Your task to perform on an android device: change the clock display to digital Image 0: 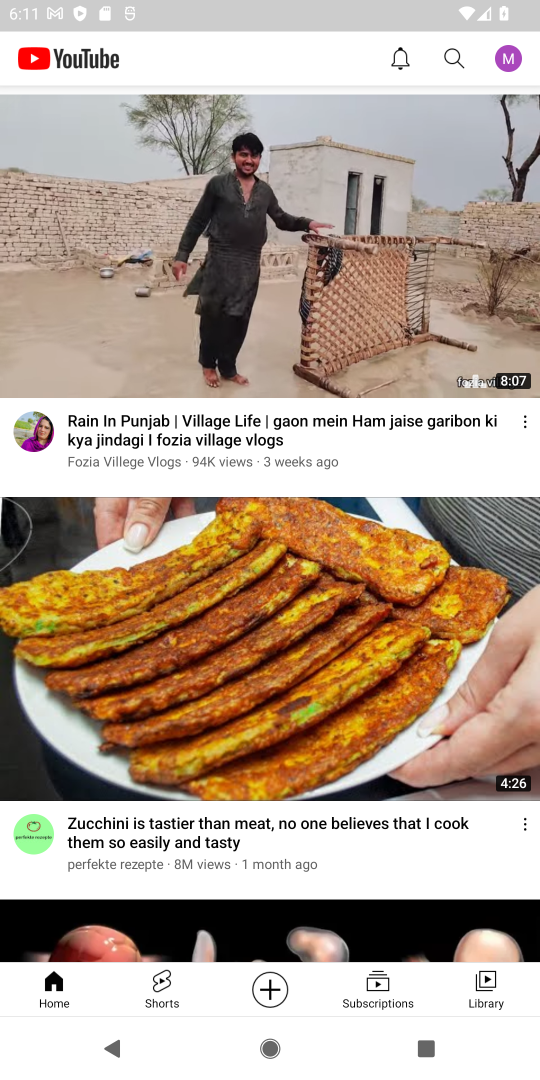
Step 0: press back button
Your task to perform on an android device: change the clock display to digital Image 1: 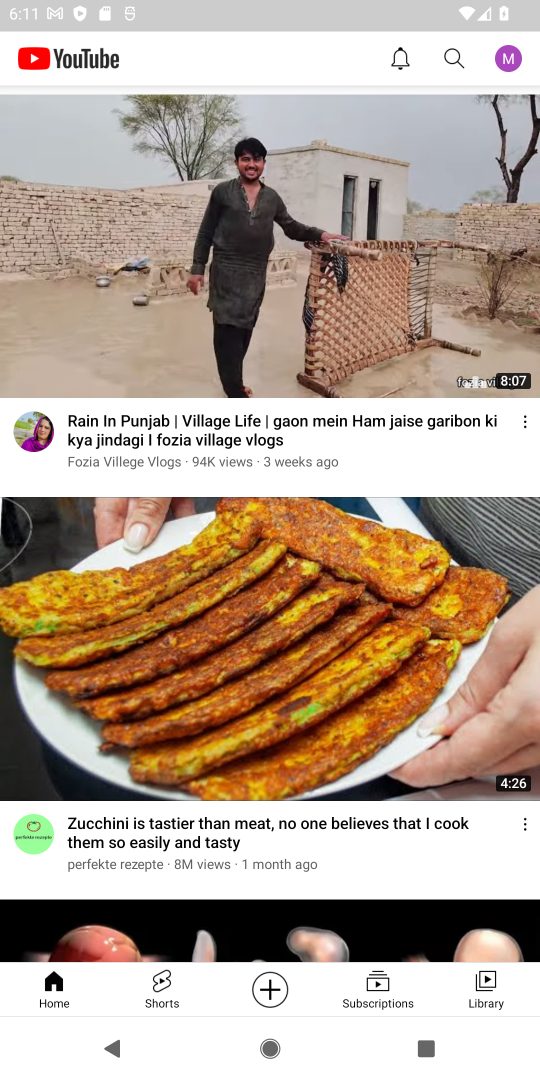
Step 1: press home button
Your task to perform on an android device: change the clock display to digital Image 2: 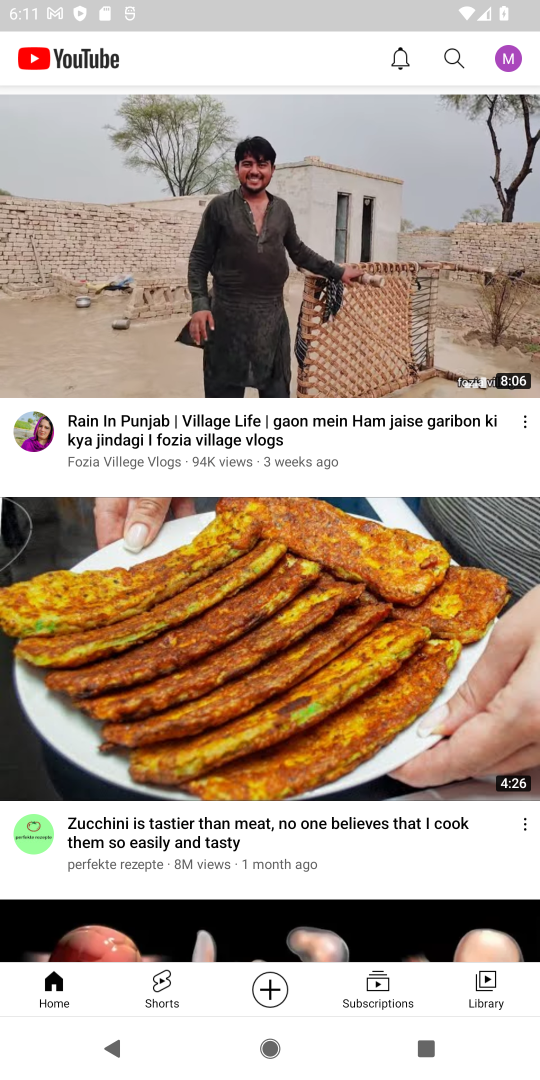
Step 2: press back button
Your task to perform on an android device: change the clock display to digital Image 3: 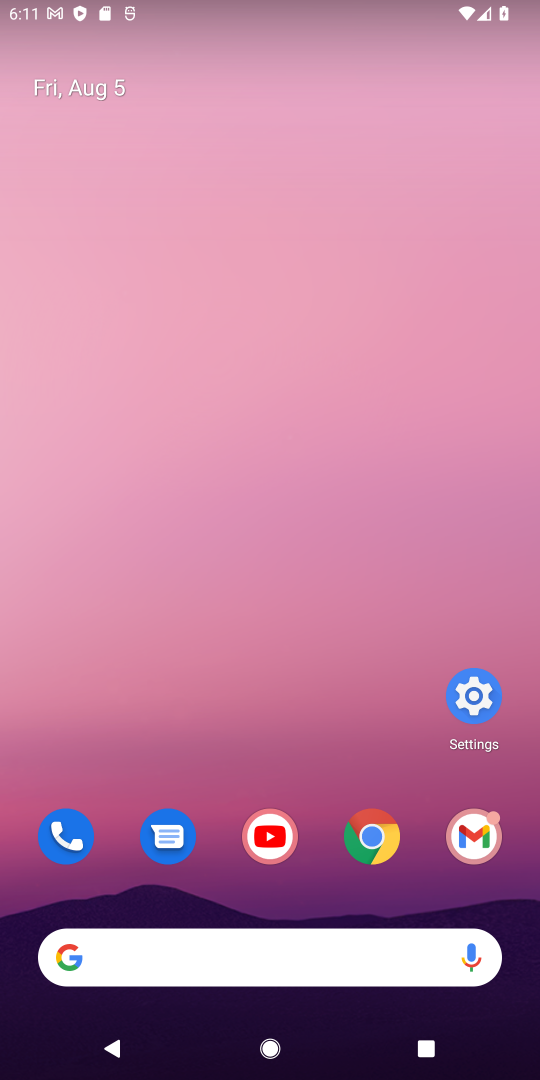
Step 3: press back button
Your task to perform on an android device: change the clock display to digital Image 4: 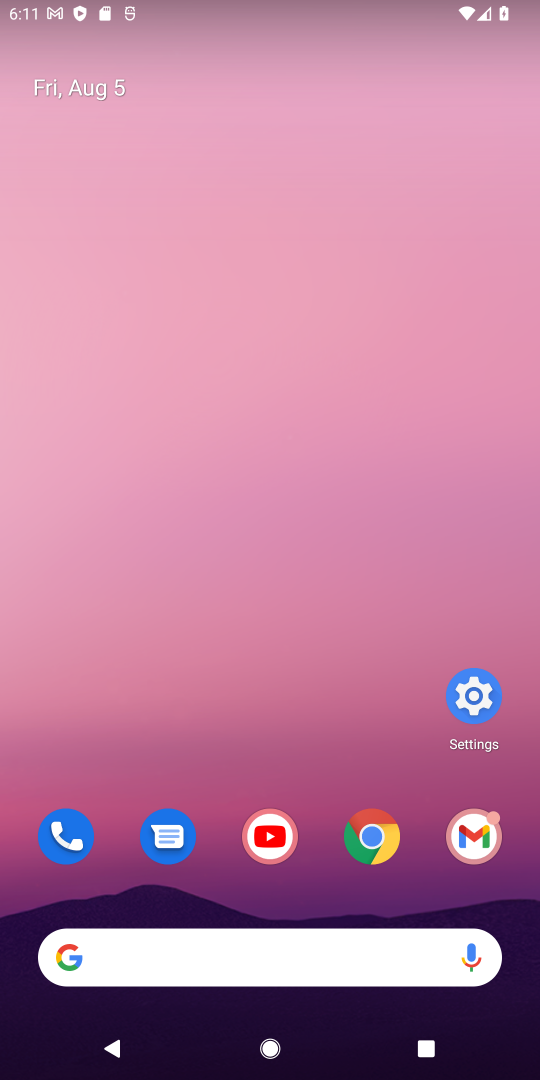
Step 4: press home button
Your task to perform on an android device: change the clock display to digital Image 5: 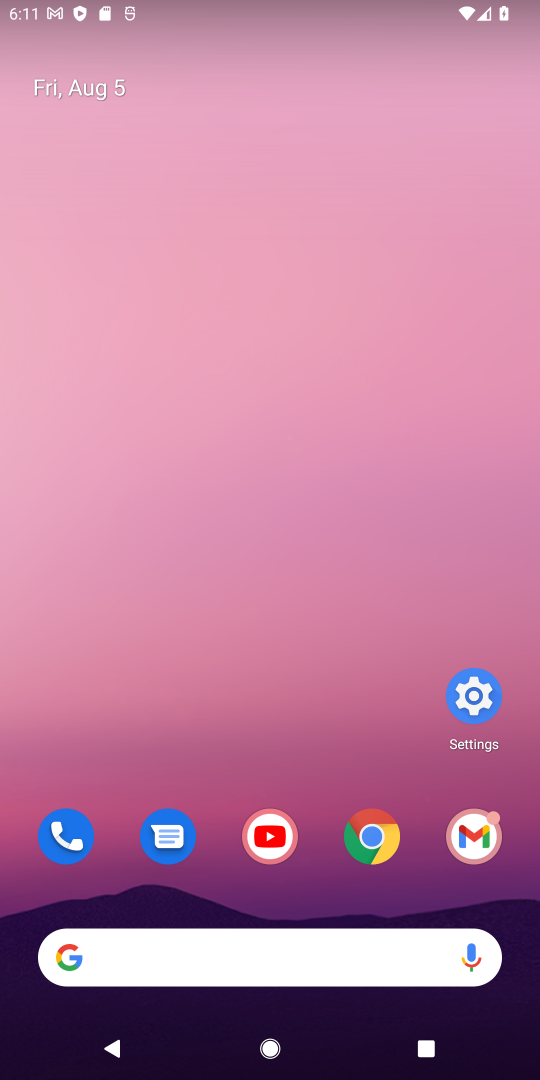
Step 5: press home button
Your task to perform on an android device: change the clock display to digital Image 6: 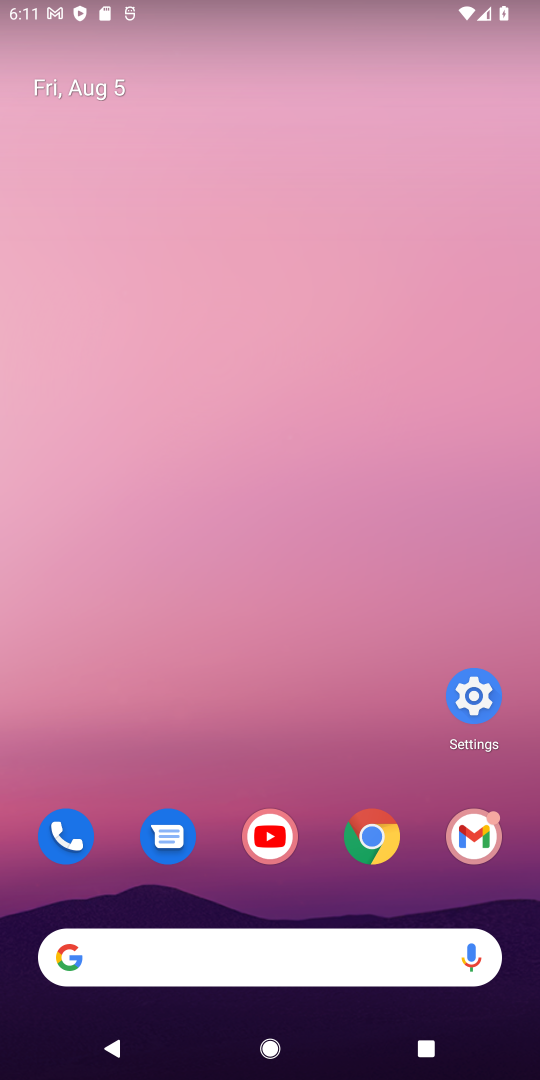
Step 6: press back button
Your task to perform on an android device: change the clock display to digital Image 7: 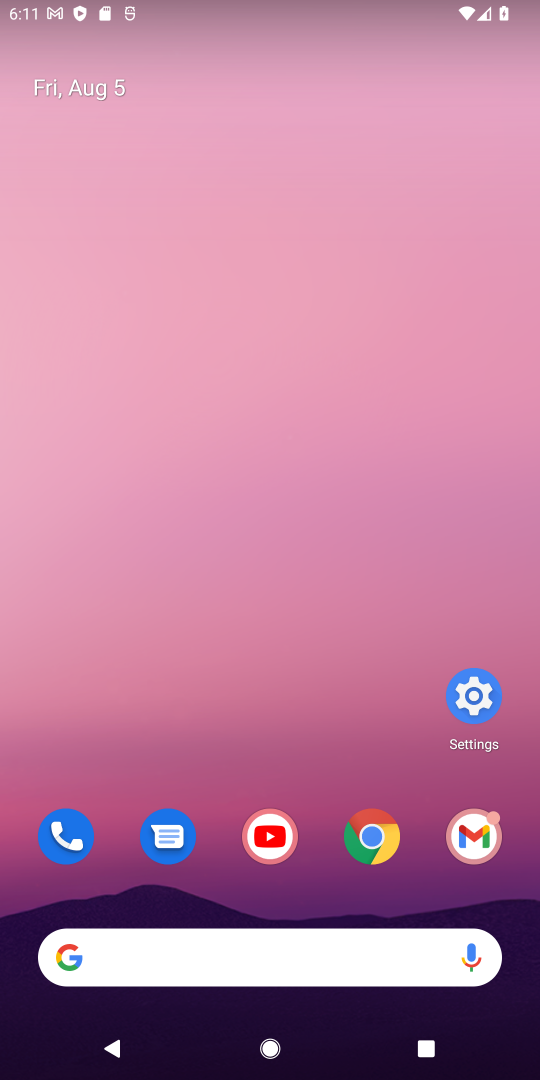
Step 7: press back button
Your task to perform on an android device: change the clock display to digital Image 8: 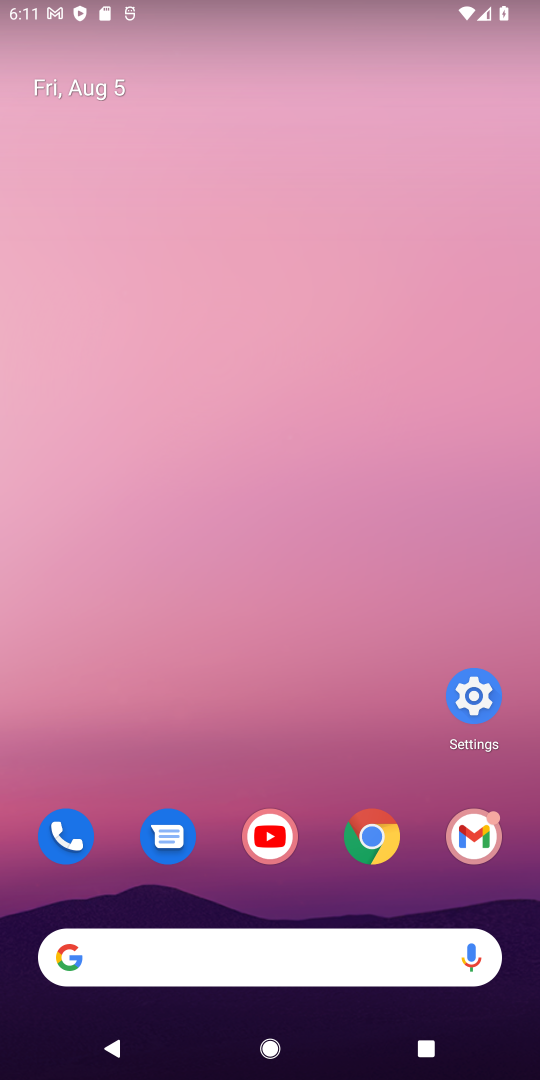
Step 8: drag from (284, 771) to (281, 239)
Your task to perform on an android device: change the clock display to digital Image 9: 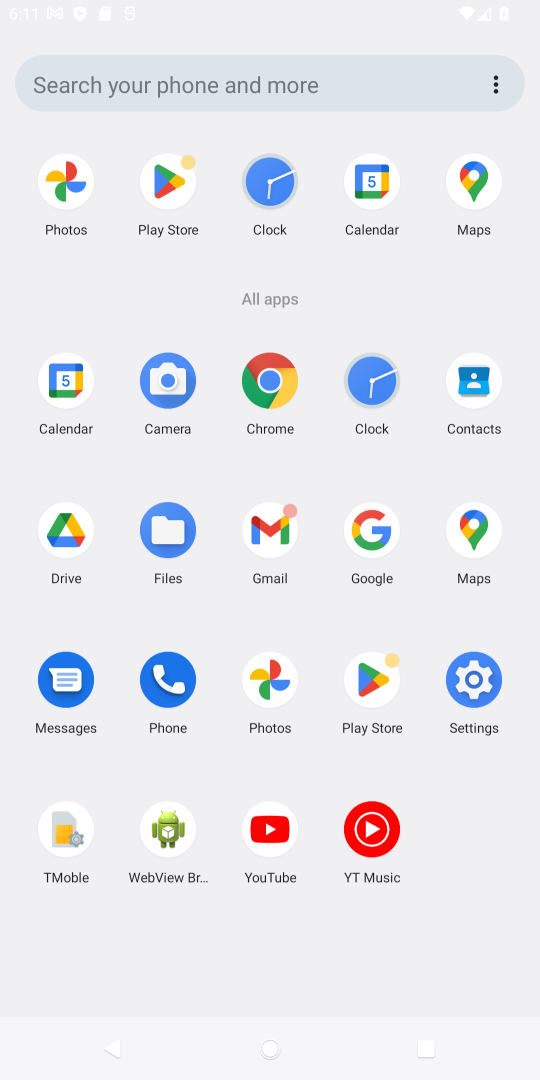
Step 9: drag from (301, 806) to (301, 291)
Your task to perform on an android device: change the clock display to digital Image 10: 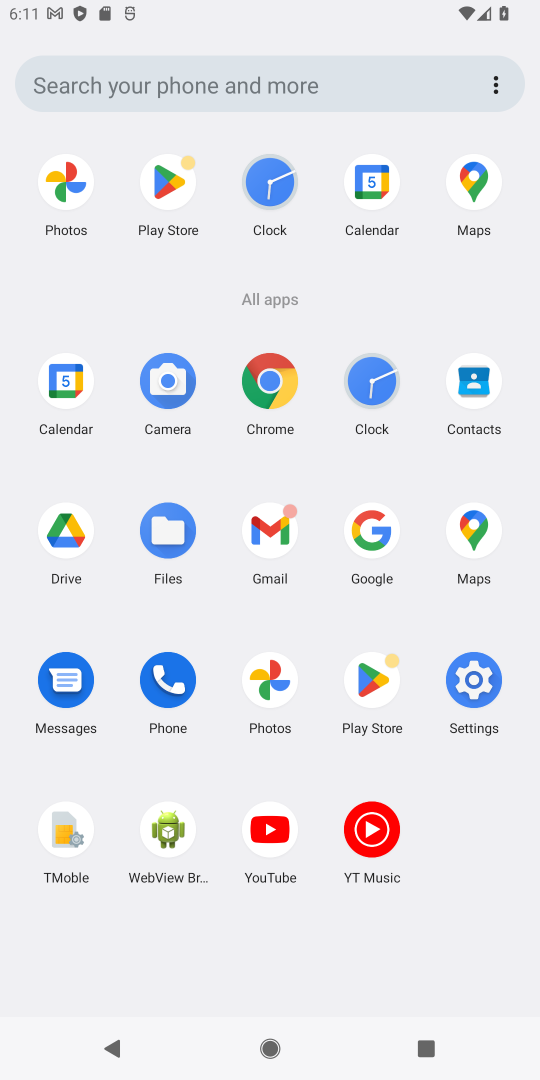
Step 10: click (271, 180)
Your task to perform on an android device: change the clock display to digital Image 11: 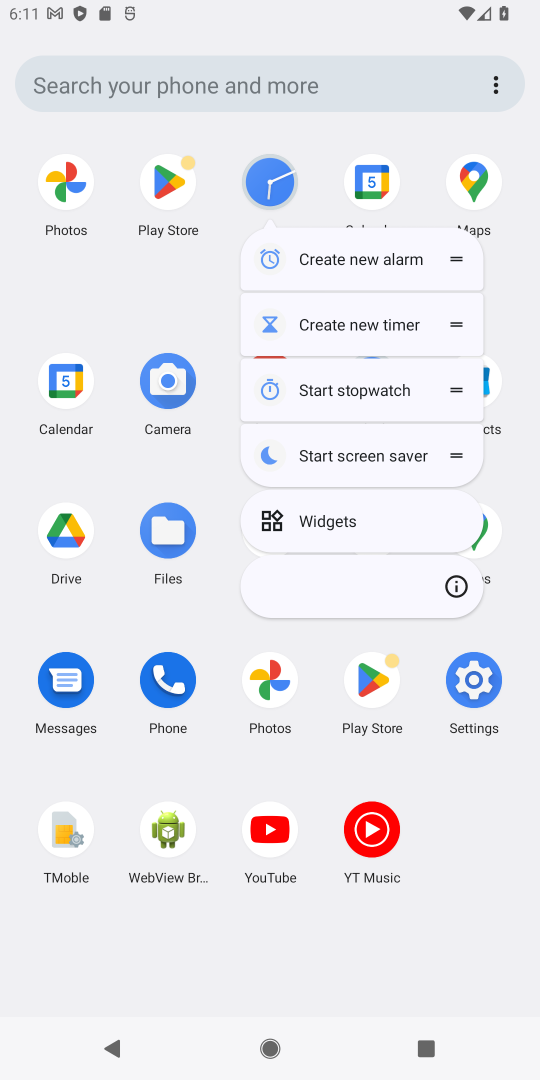
Step 11: click (257, 184)
Your task to perform on an android device: change the clock display to digital Image 12: 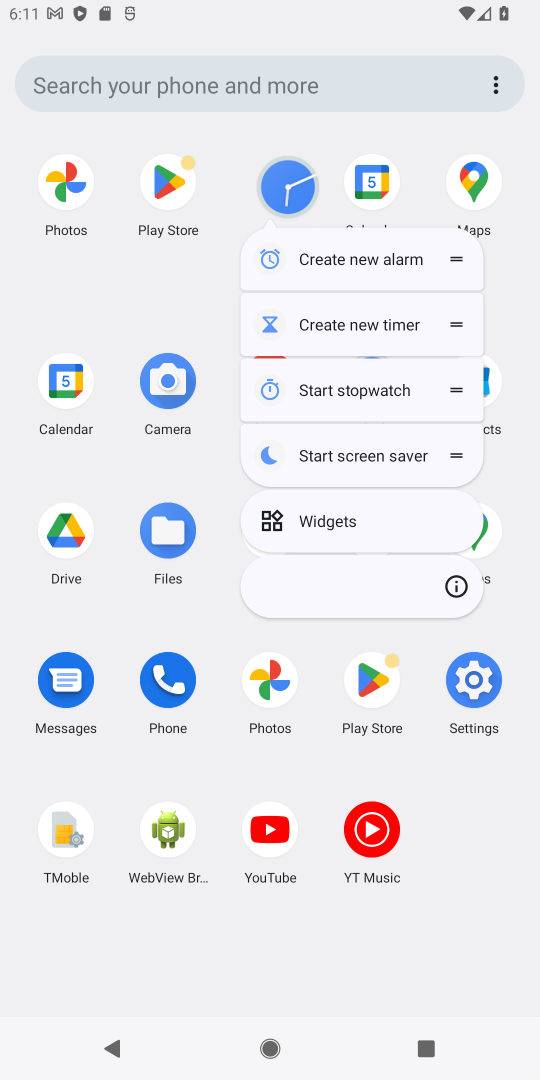
Step 12: click (268, 189)
Your task to perform on an android device: change the clock display to digital Image 13: 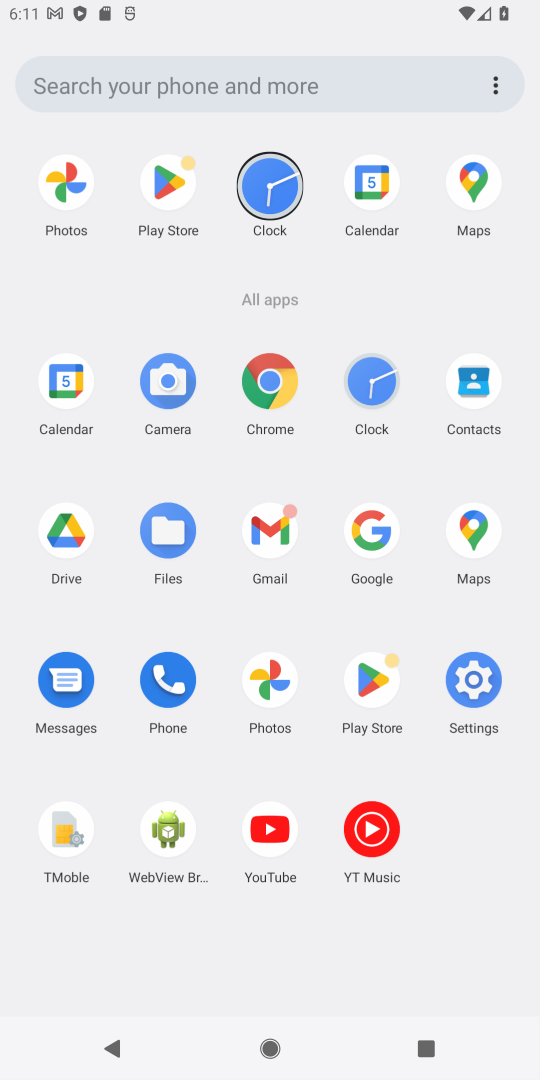
Step 13: click (290, 183)
Your task to perform on an android device: change the clock display to digital Image 14: 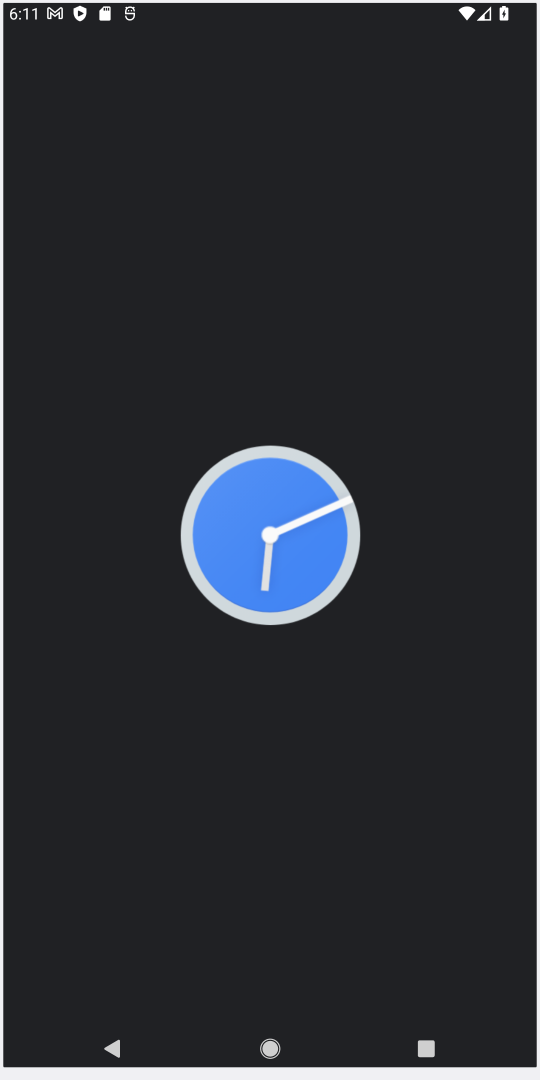
Step 14: click (290, 183)
Your task to perform on an android device: change the clock display to digital Image 15: 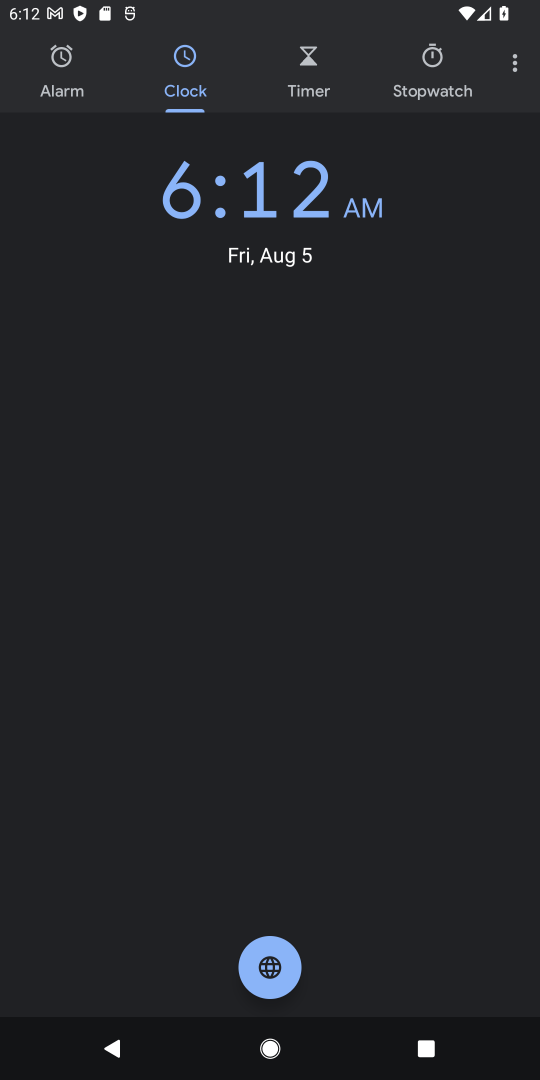
Step 15: click (514, 62)
Your task to perform on an android device: change the clock display to digital Image 16: 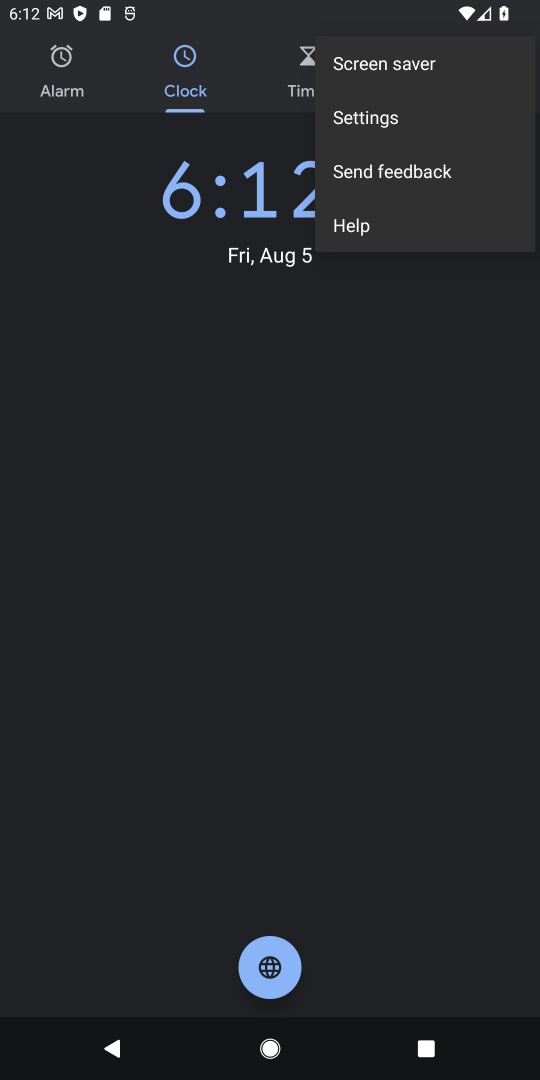
Step 16: click (394, 104)
Your task to perform on an android device: change the clock display to digital Image 17: 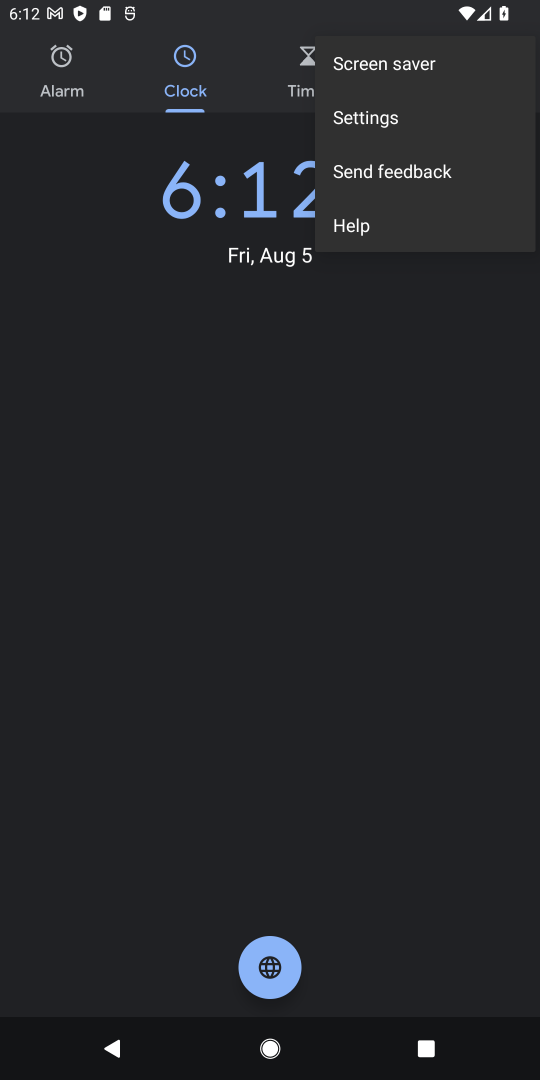
Step 17: click (376, 112)
Your task to perform on an android device: change the clock display to digital Image 18: 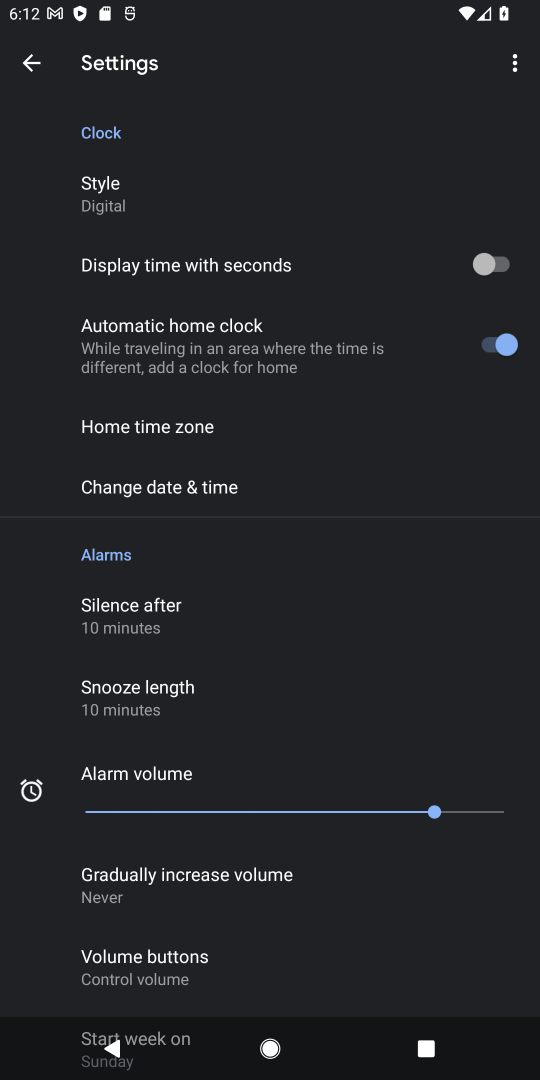
Step 18: task complete